Your task to perform on an android device: Clear all items from cart on newegg.com. Image 0: 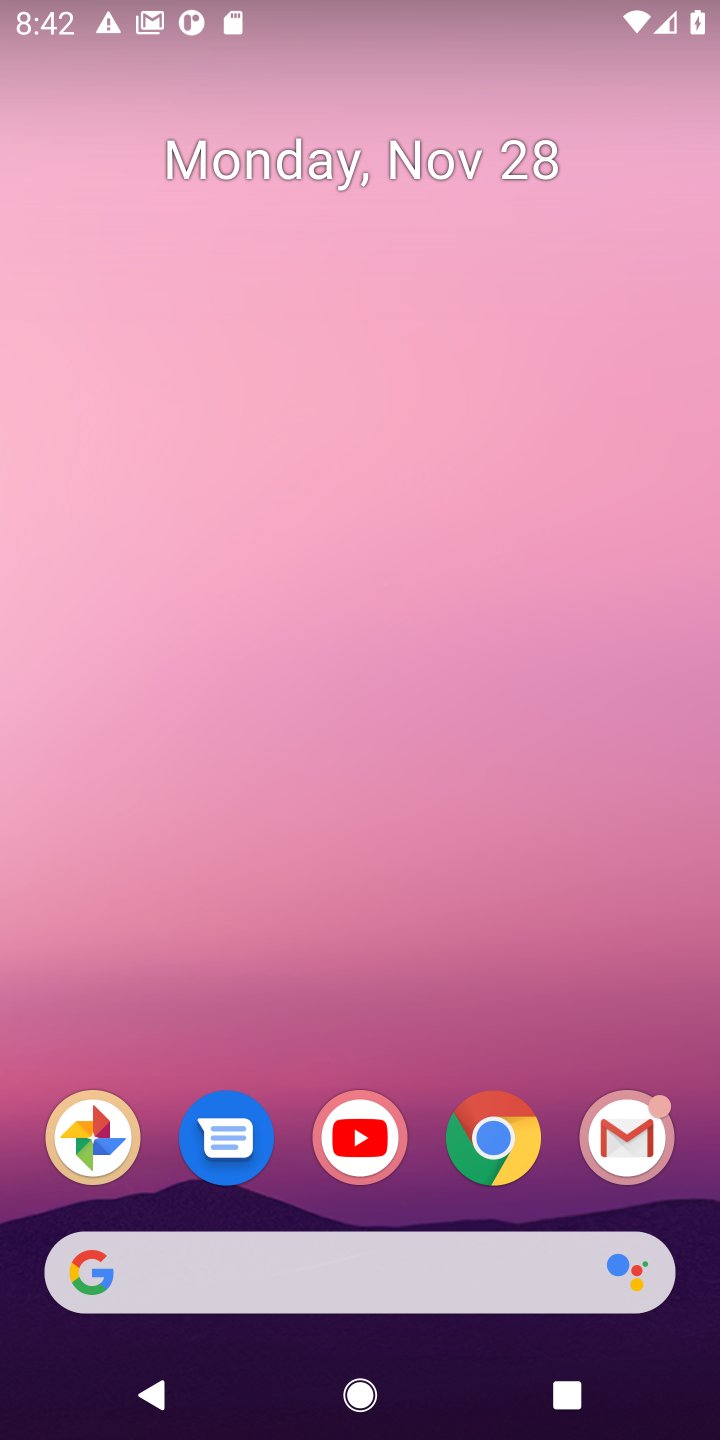
Step 0: click (500, 1136)
Your task to perform on an android device: Clear all items from cart on newegg.com. Image 1: 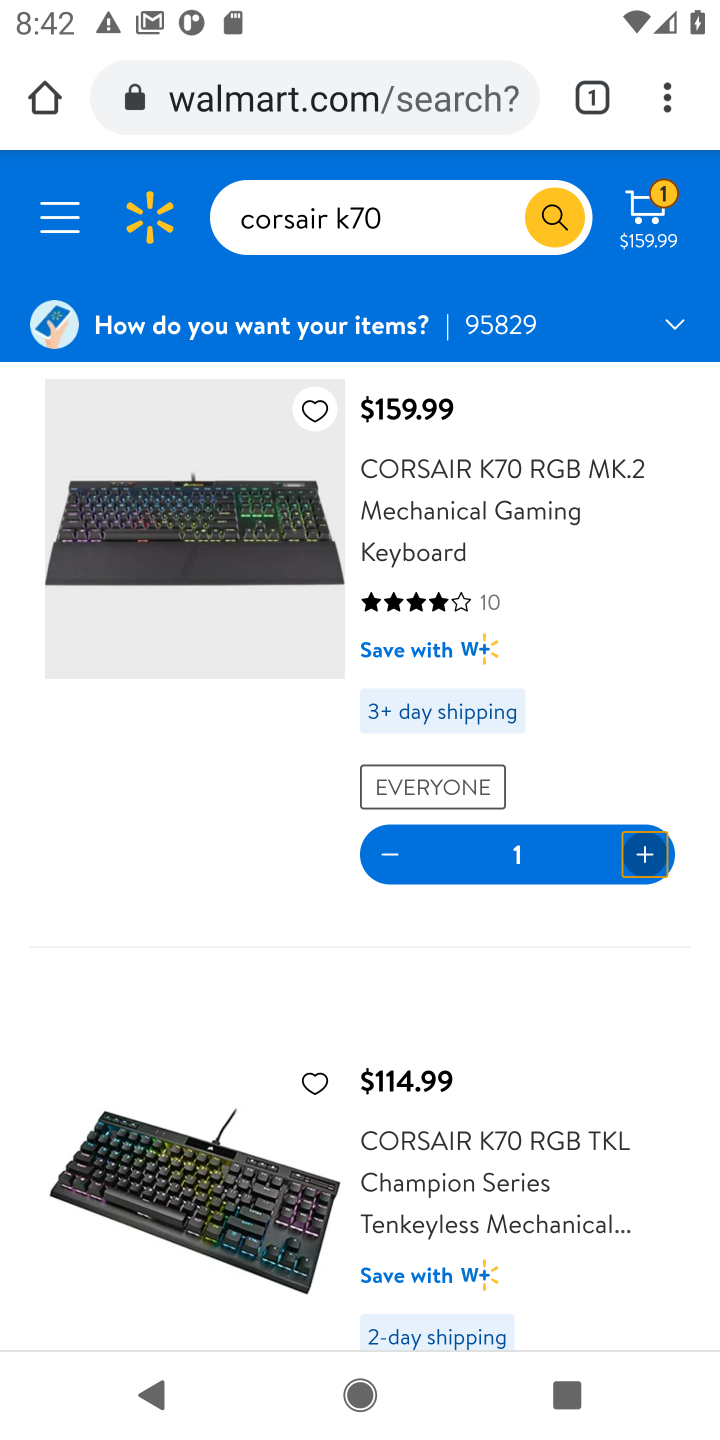
Step 1: click (319, 100)
Your task to perform on an android device: Clear all items from cart on newegg.com. Image 2: 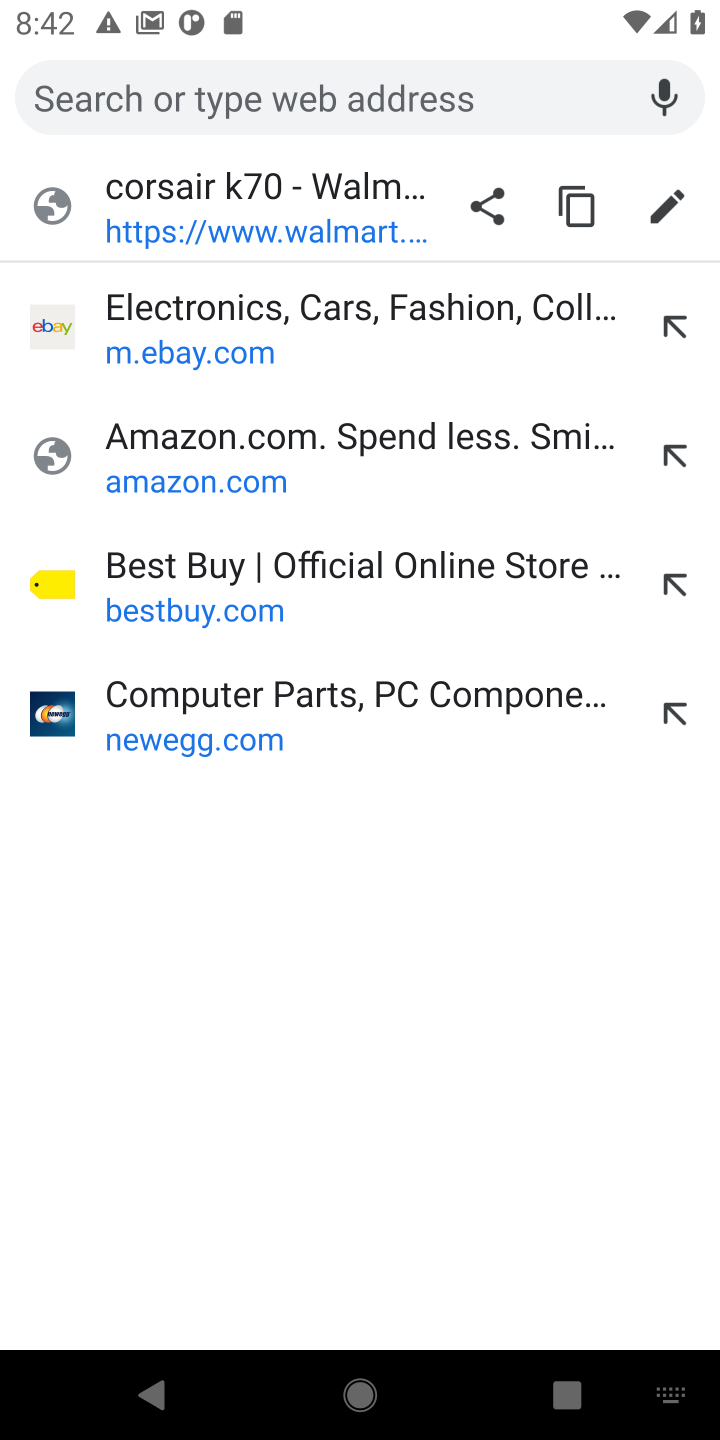
Step 2: click (130, 705)
Your task to perform on an android device: Clear all items from cart on newegg.com. Image 3: 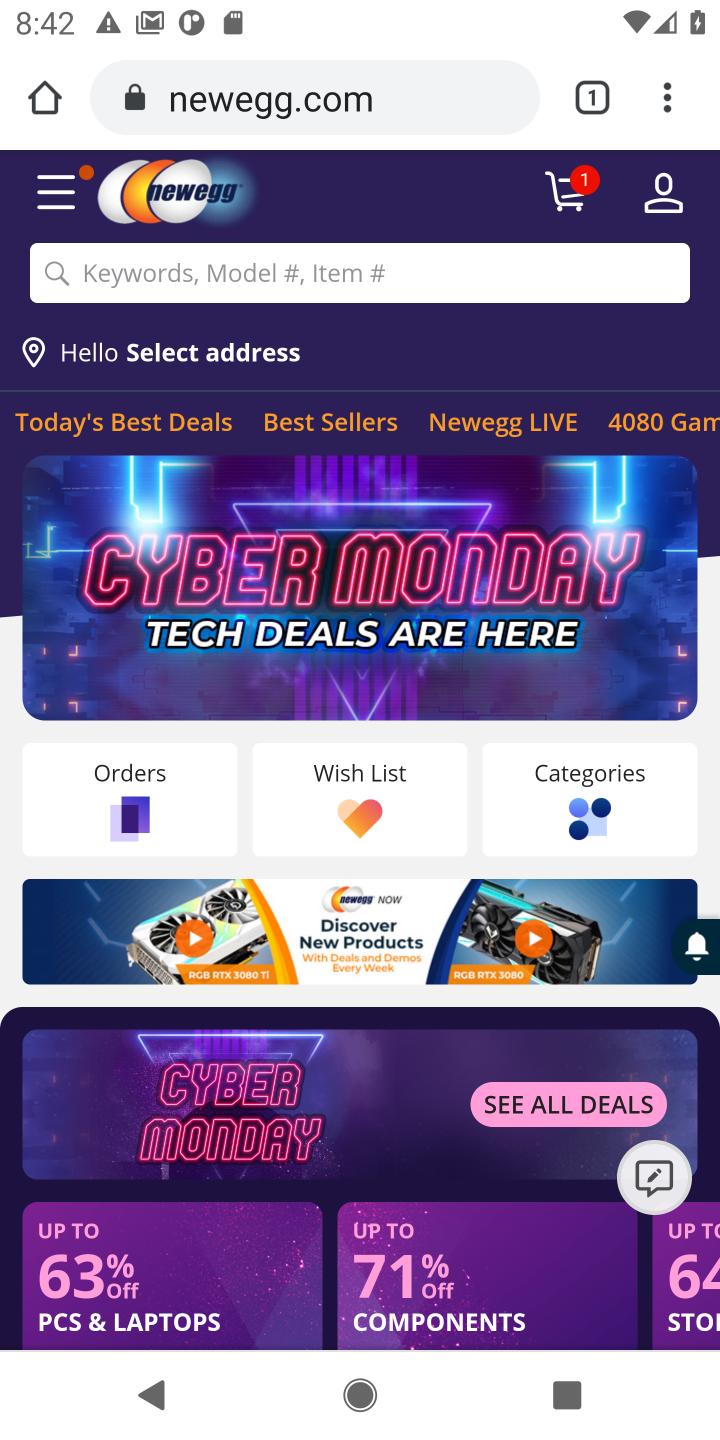
Step 3: click (566, 206)
Your task to perform on an android device: Clear all items from cart on newegg.com. Image 4: 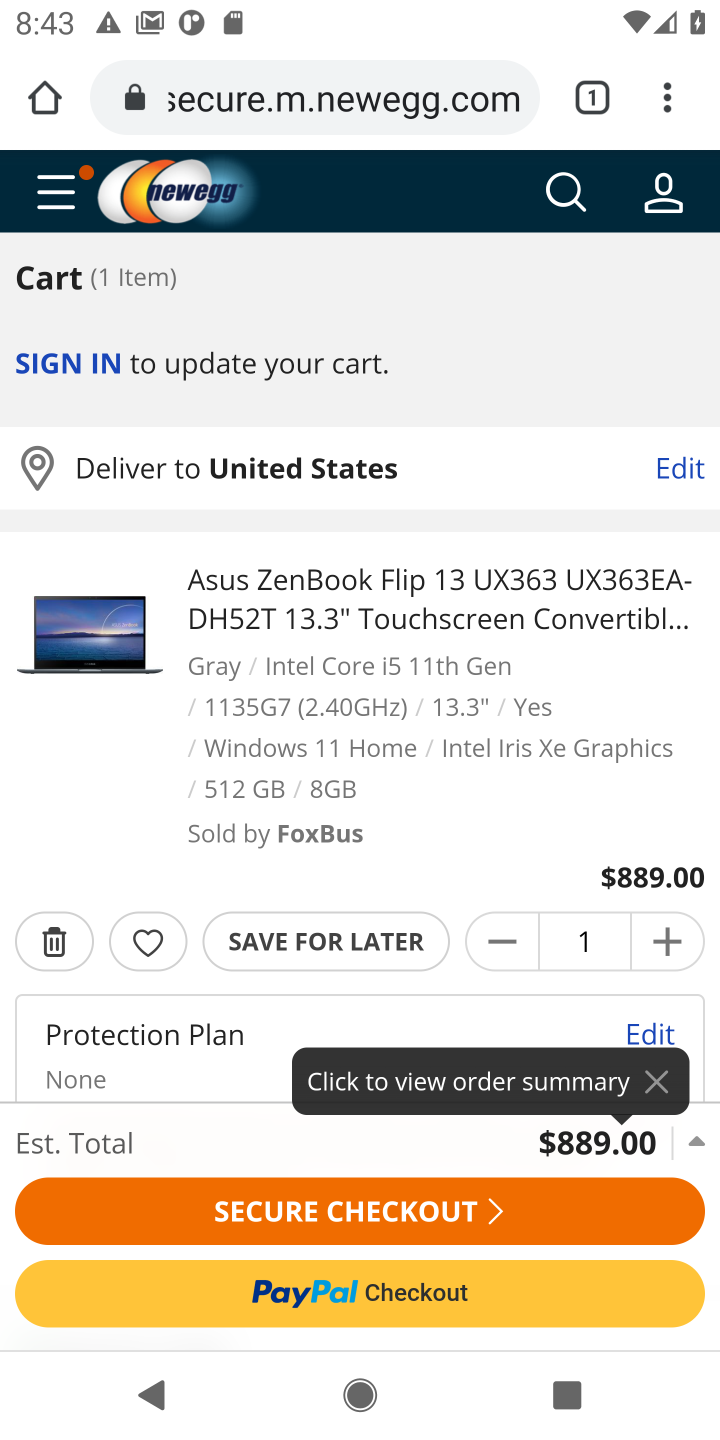
Step 4: click (55, 939)
Your task to perform on an android device: Clear all items from cart on newegg.com. Image 5: 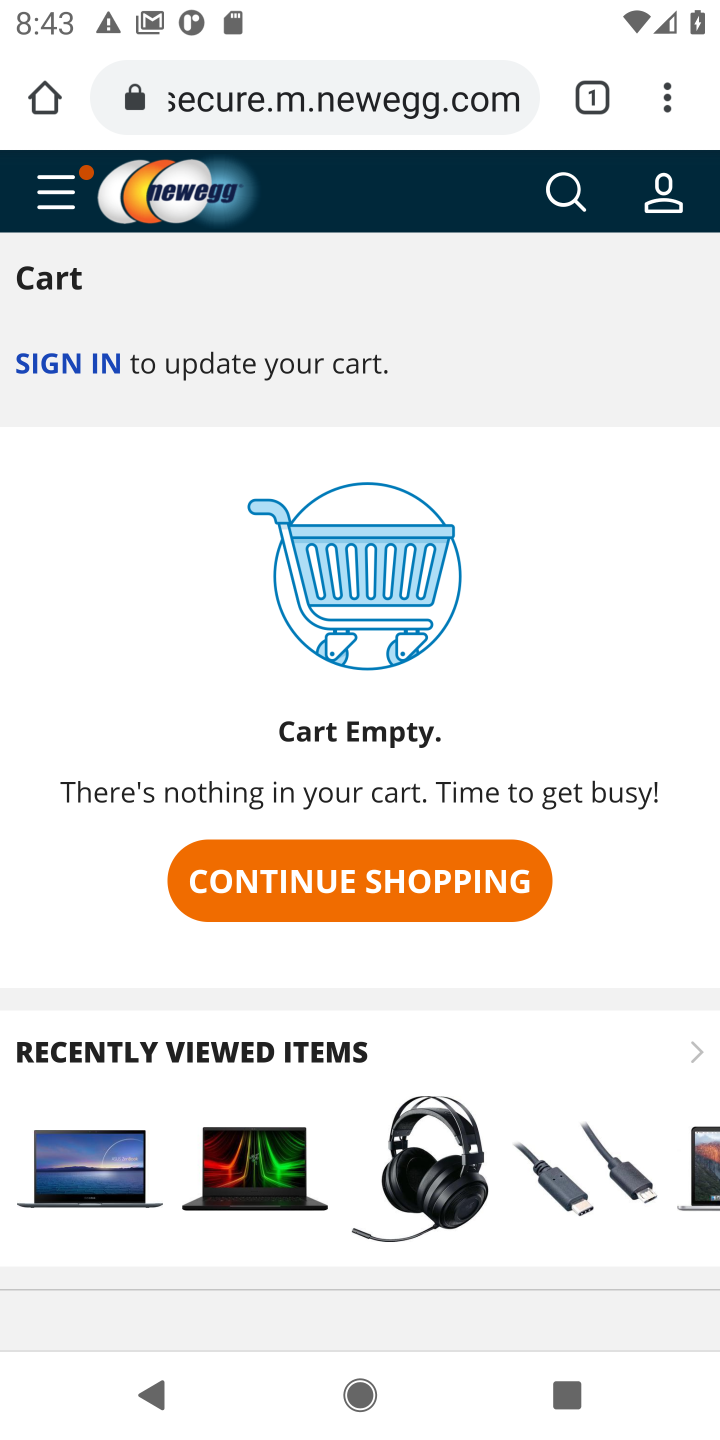
Step 5: task complete